Your task to perform on an android device: What's the weather? Image 0: 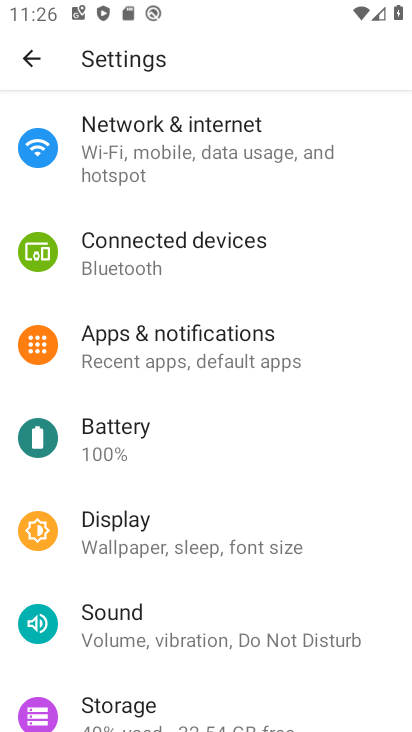
Step 0: press home button
Your task to perform on an android device: What's the weather? Image 1: 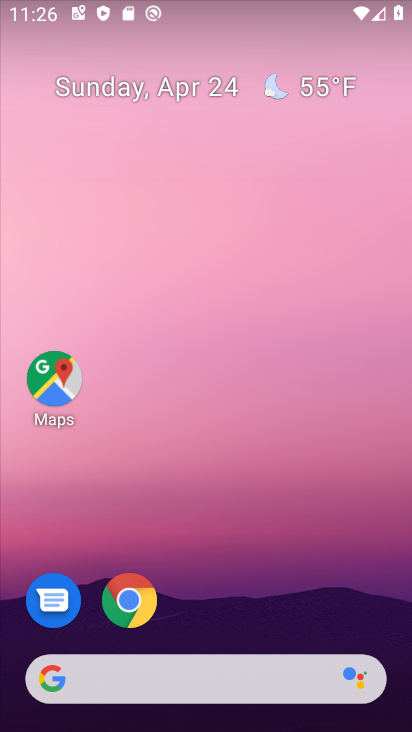
Step 1: click (289, 669)
Your task to perform on an android device: What's the weather? Image 2: 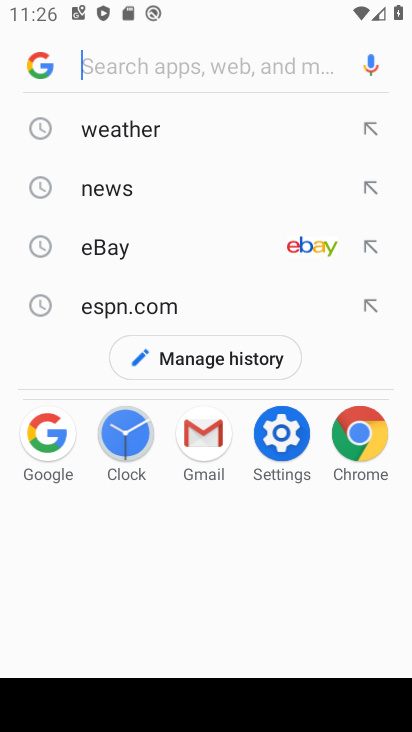
Step 2: click (147, 135)
Your task to perform on an android device: What's the weather? Image 3: 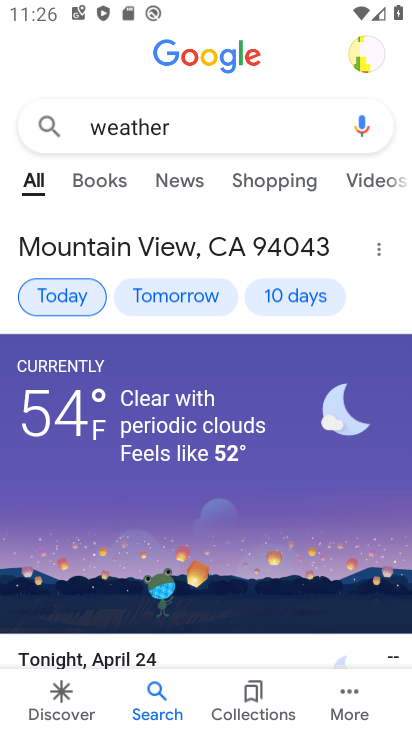
Step 3: task complete